Your task to perform on an android device: Go to eBay Image 0: 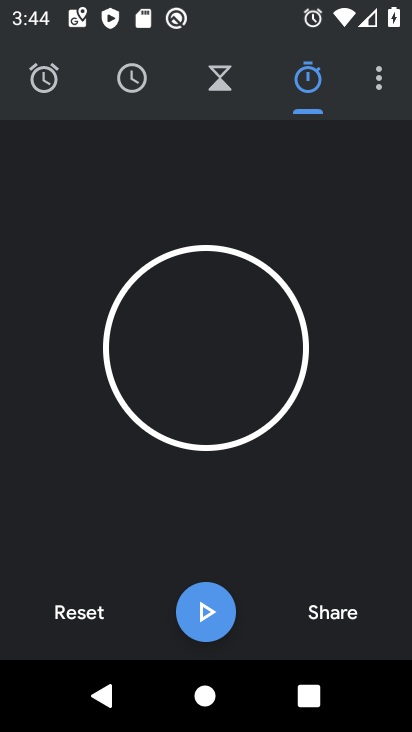
Step 0: press home button
Your task to perform on an android device: Go to eBay Image 1: 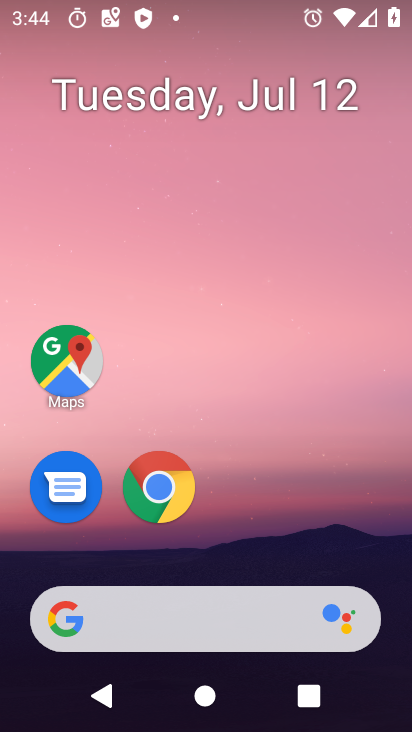
Step 1: click (149, 515)
Your task to perform on an android device: Go to eBay Image 2: 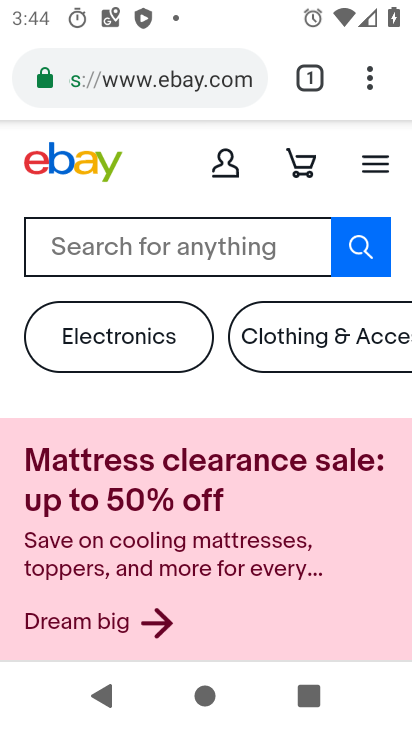
Step 2: task complete